Your task to perform on an android device: Open my contact list Image 0: 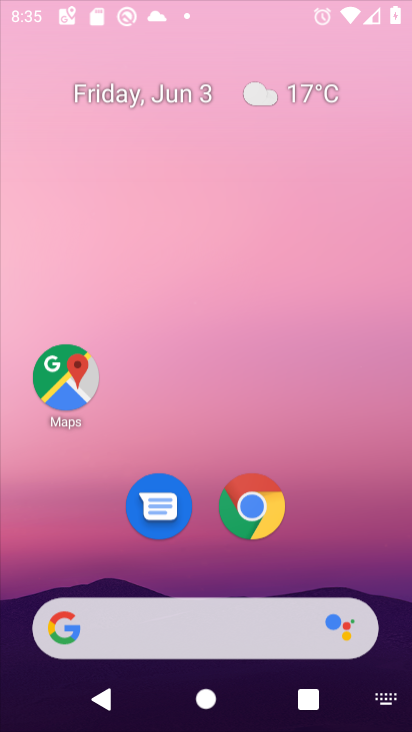
Step 0: press home button
Your task to perform on an android device: Open my contact list Image 1: 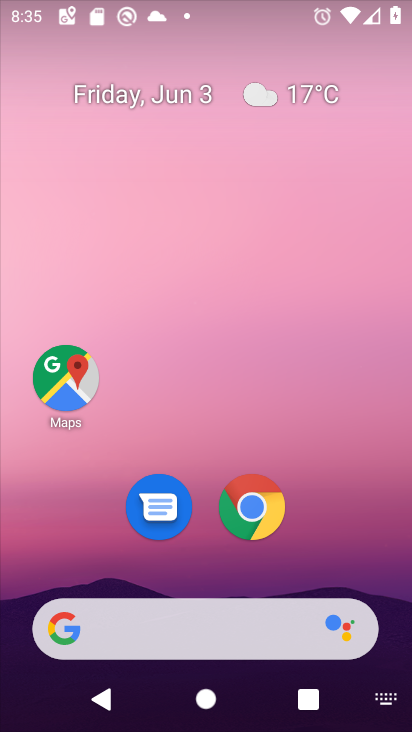
Step 1: drag from (330, 561) to (134, 197)
Your task to perform on an android device: Open my contact list Image 2: 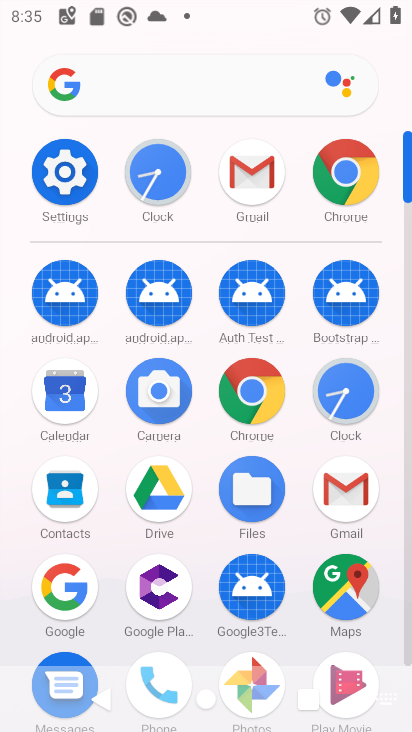
Step 2: click (75, 491)
Your task to perform on an android device: Open my contact list Image 3: 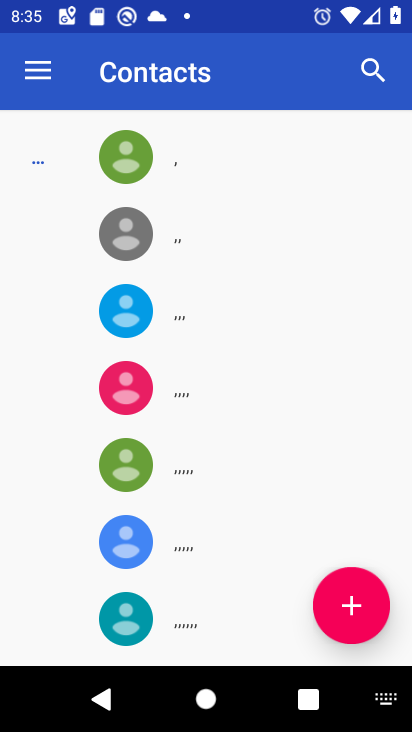
Step 3: task complete